Your task to perform on an android device: turn on notifications settings in the gmail app Image 0: 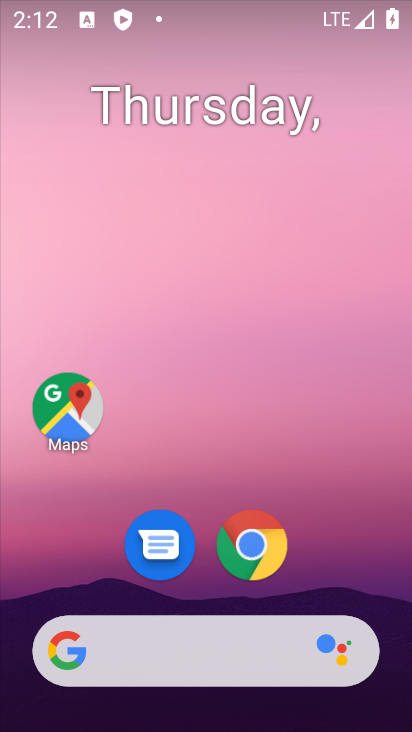
Step 0: drag from (283, 621) to (323, 19)
Your task to perform on an android device: turn on notifications settings in the gmail app Image 1: 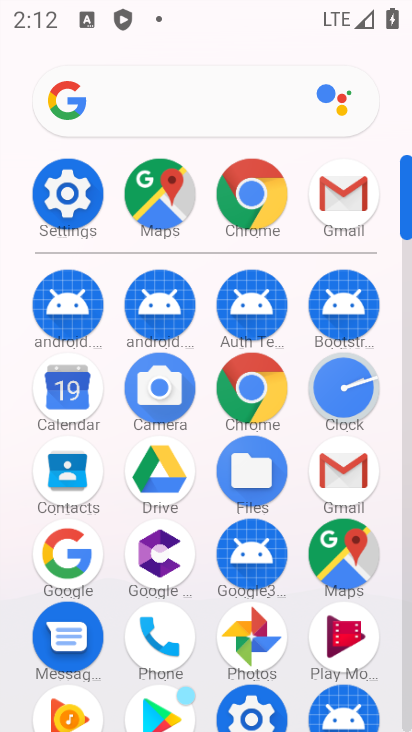
Step 1: click (347, 471)
Your task to perform on an android device: turn on notifications settings in the gmail app Image 2: 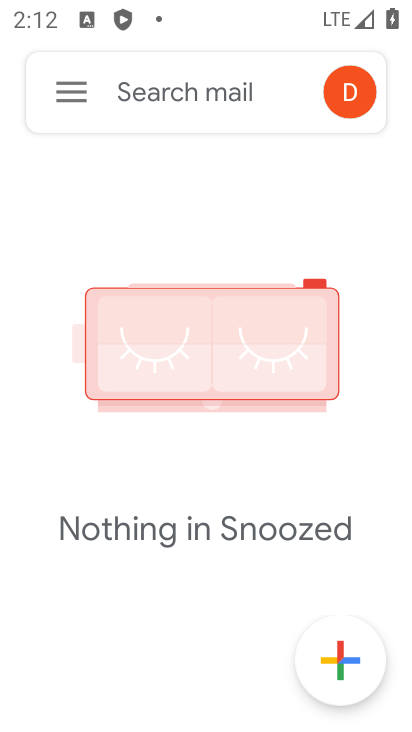
Step 2: click (66, 84)
Your task to perform on an android device: turn on notifications settings in the gmail app Image 3: 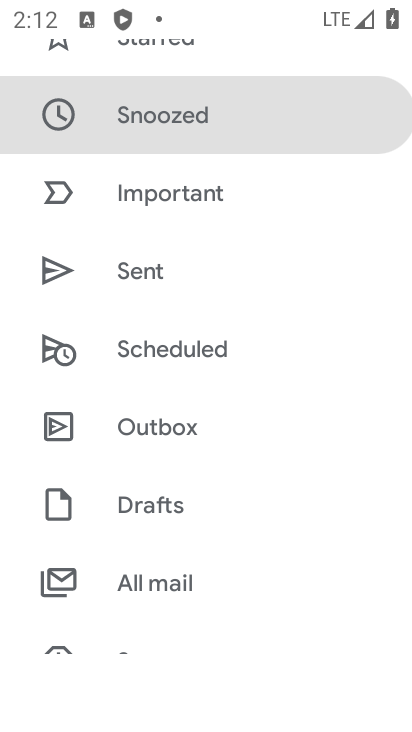
Step 3: drag from (174, 597) to (235, 13)
Your task to perform on an android device: turn on notifications settings in the gmail app Image 4: 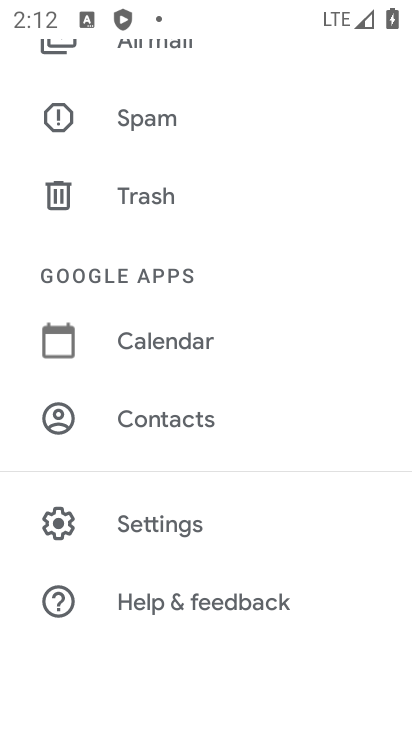
Step 4: click (192, 528)
Your task to perform on an android device: turn on notifications settings in the gmail app Image 5: 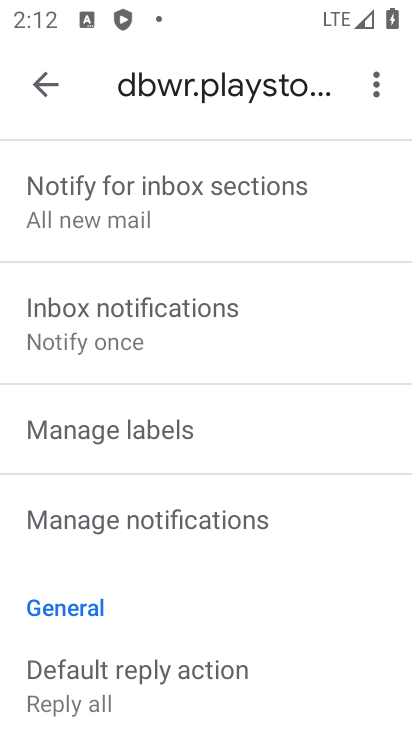
Step 5: click (221, 523)
Your task to perform on an android device: turn on notifications settings in the gmail app Image 6: 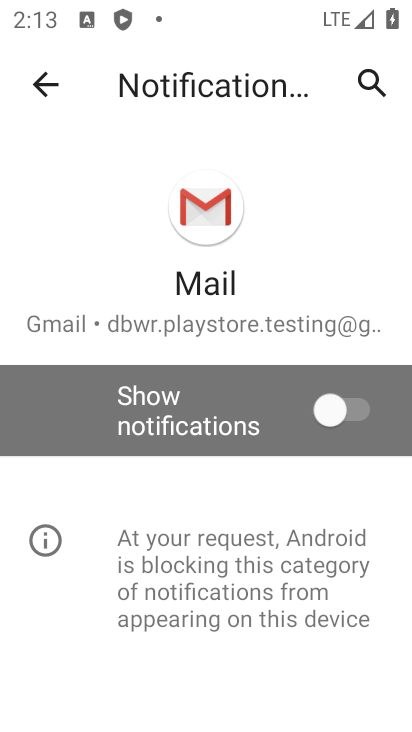
Step 6: task complete